Your task to perform on an android device: check out phone information Image 0: 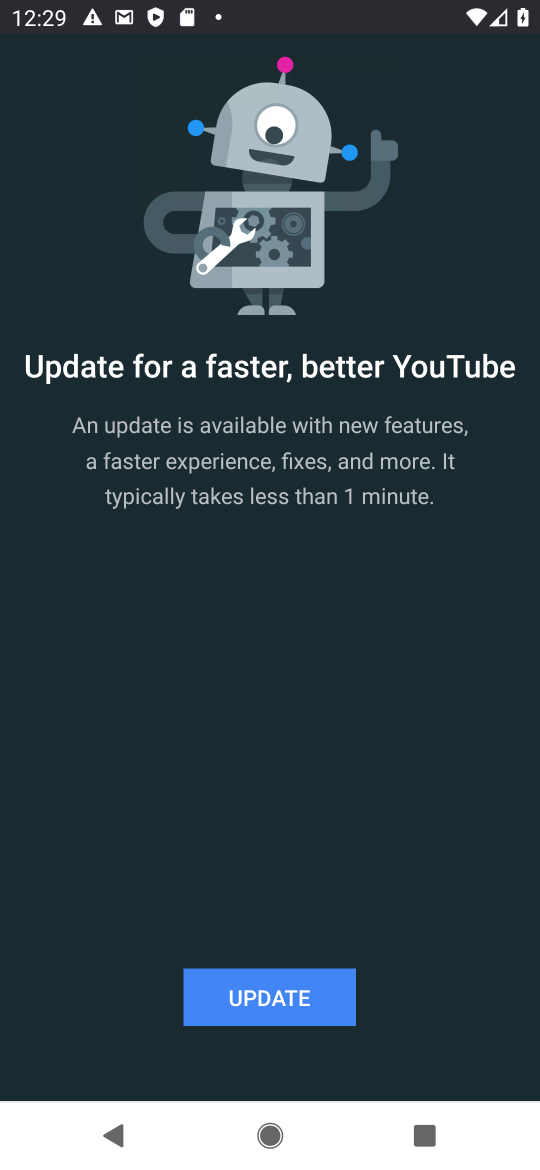
Step 0: press home button
Your task to perform on an android device: check out phone information Image 1: 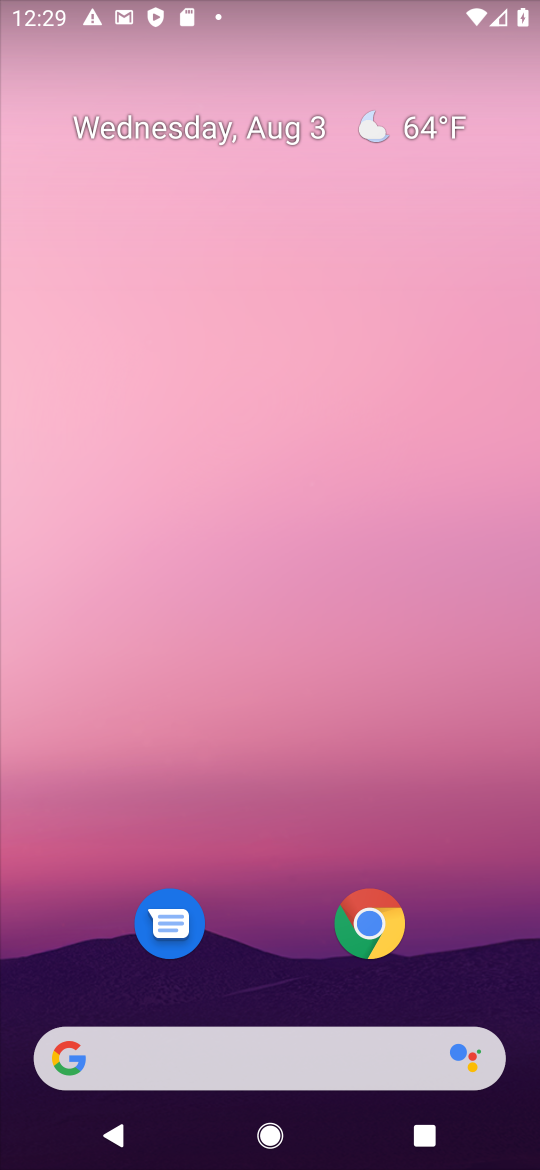
Step 1: drag from (239, 963) to (250, 381)
Your task to perform on an android device: check out phone information Image 2: 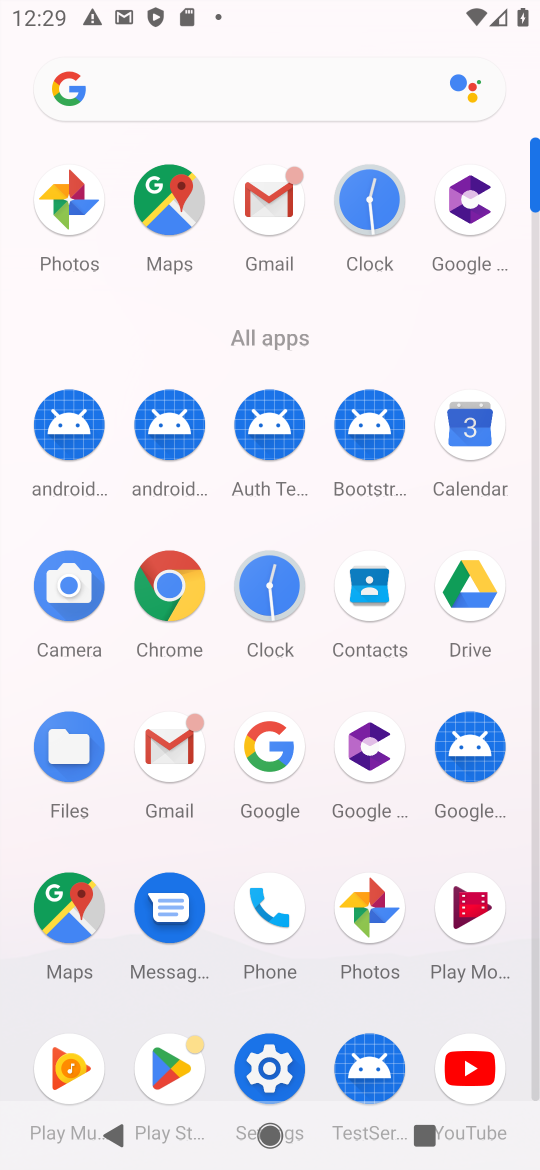
Step 2: drag from (326, 976) to (313, 444)
Your task to perform on an android device: check out phone information Image 3: 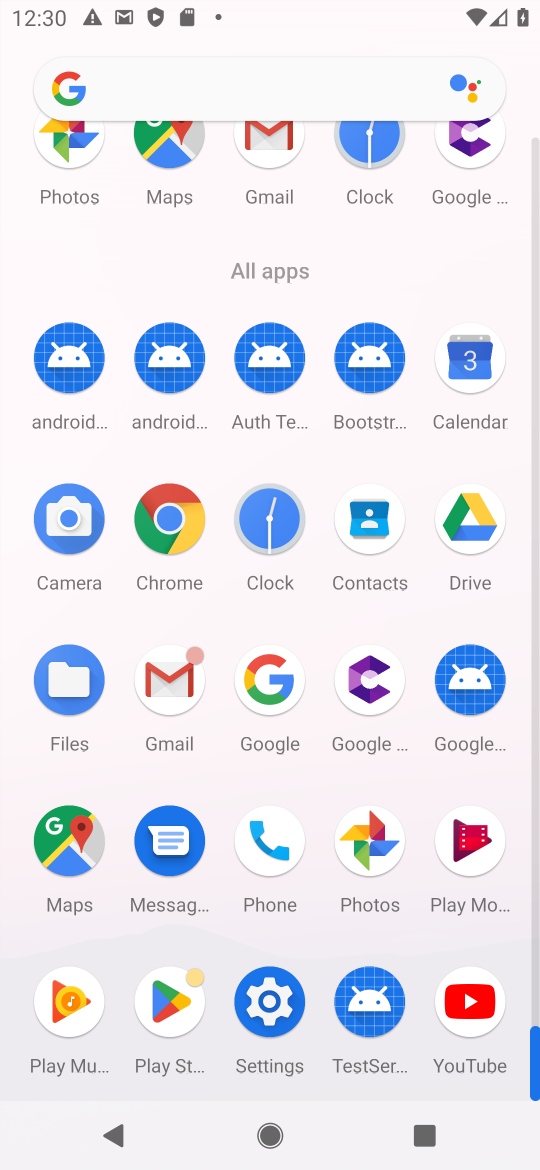
Step 3: click (274, 996)
Your task to perform on an android device: check out phone information Image 4: 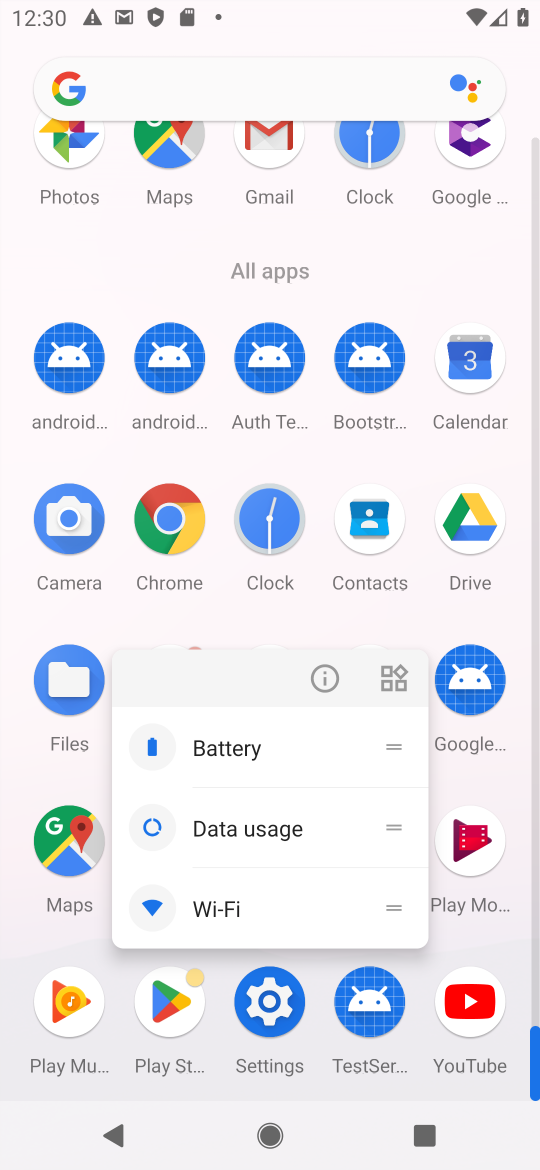
Step 4: click (317, 660)
Your task to perform on an android device: check out phone information Image 5: 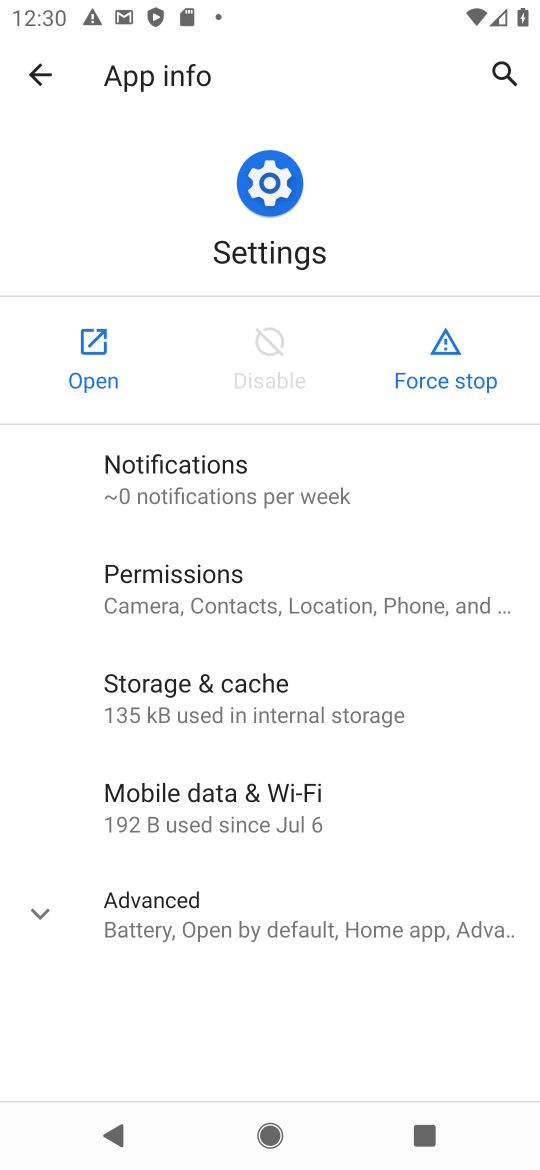
Step 5: click (97, 371)
Your task to perform on an android device: check out phone information Image 6: 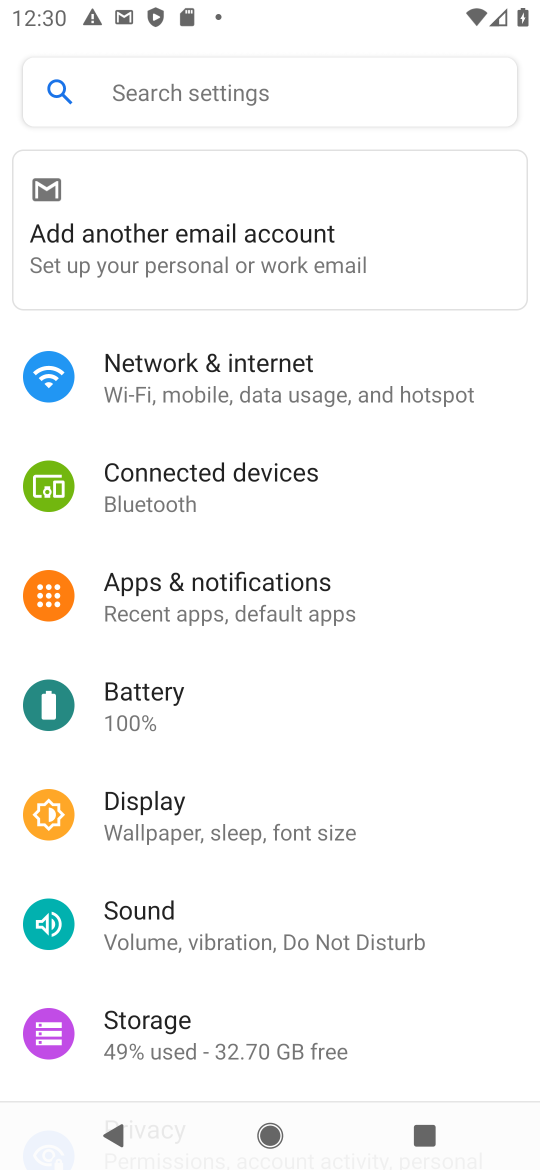
Step 6: drag from (344, 1026) to (340, 539)
Your task to perform on an android device: check out phone information Image 7: 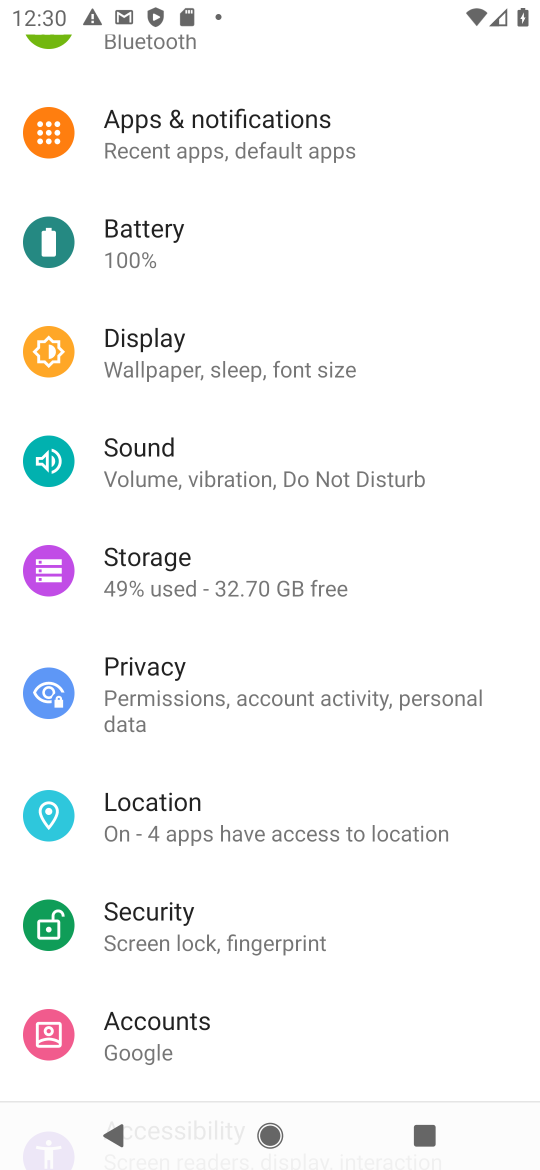
Step 7: drag from (289, 1017) to (283, 391)
Your task to perform on an android device: check out phone information Image 8: 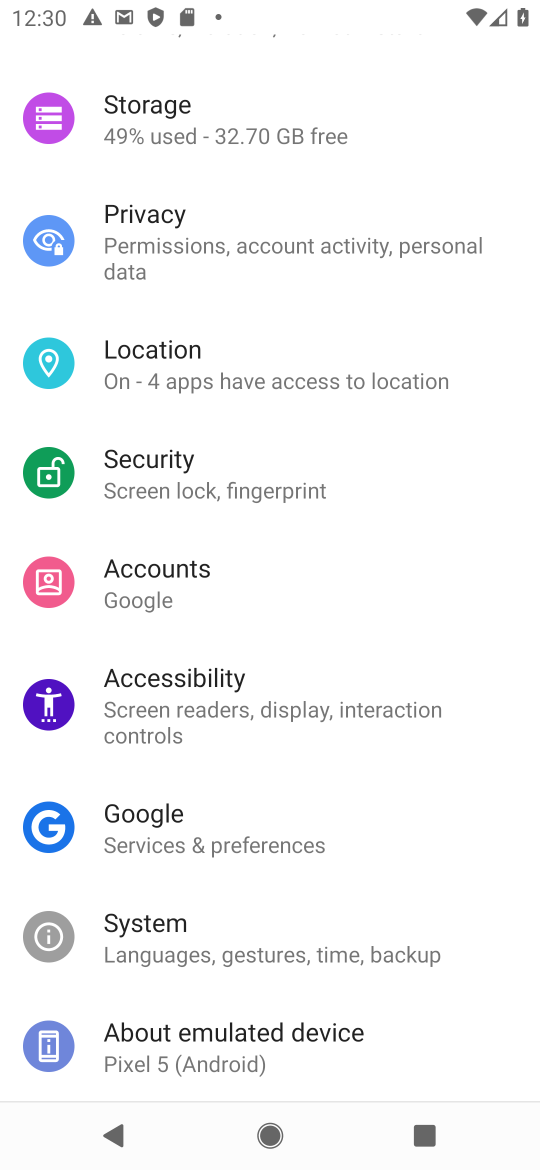
Step 8: click (217, 1050)
Your task to perform on an android device: check out phone information Image 9: 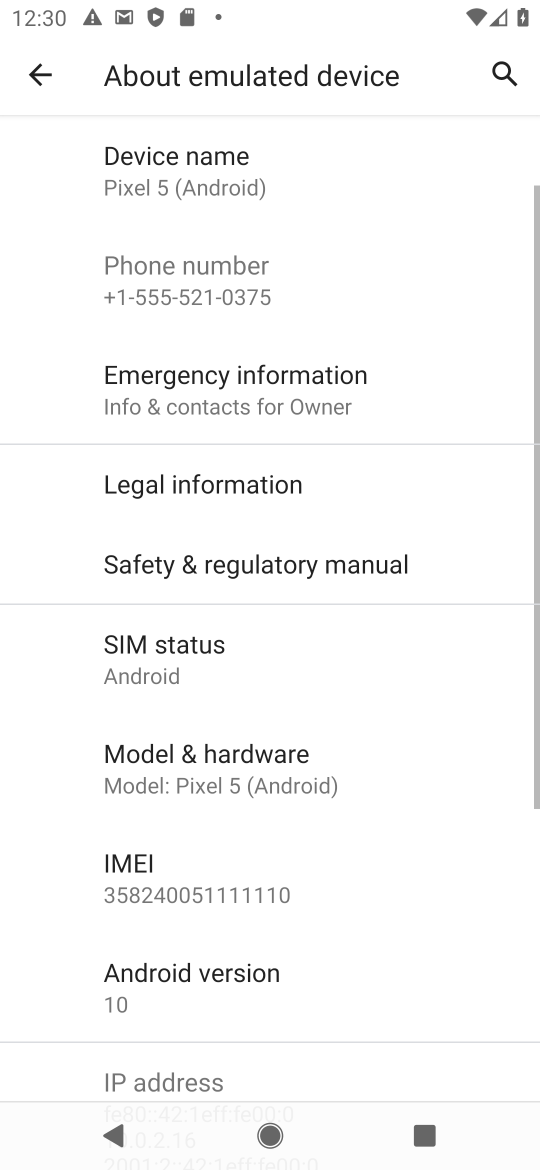
Step 9: task complete